Your task to perform on an android device: Open Google Chrome Image 0: 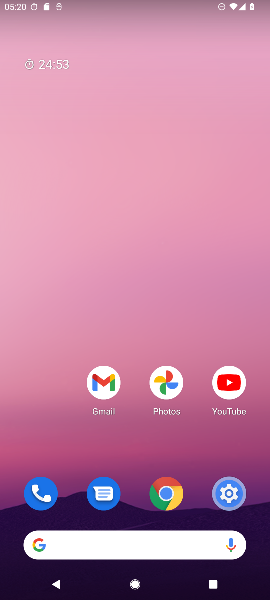
Step 0: press home button
Your task to perform on an android device: Open Google Chrome Image 1: 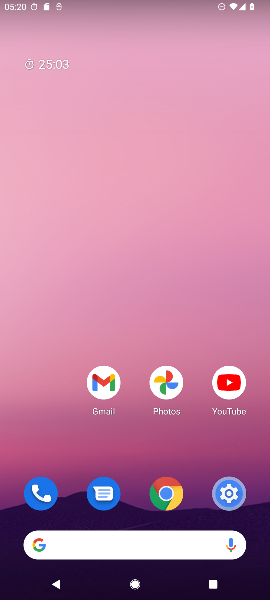
Step 1: drag from (40, 425) to (50, 121)
Your task to perform on an android device: Open Google Chrome Image 2: 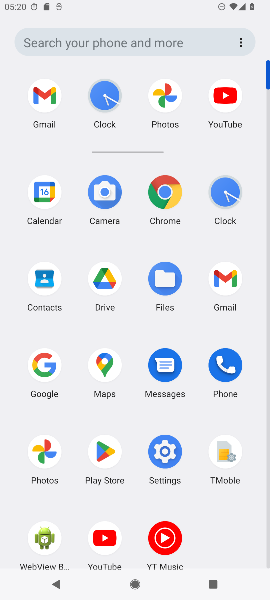
Step 2: click (166, 191)
Your task to perform on an android device: Open Google Chrome Image 3: 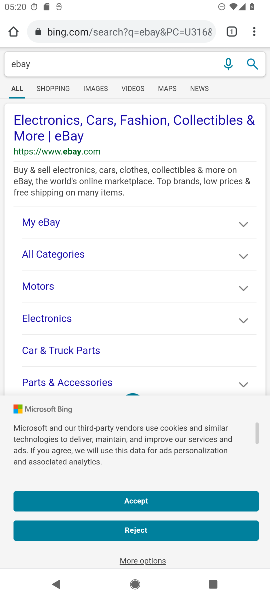
Step 3: task complete